Your task to perform on an android device: turn on translation in the chrome app Image 0: 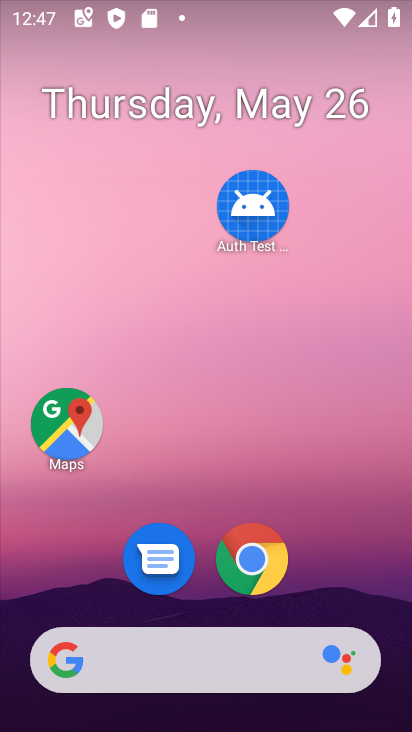
Step 0: click (251, 561)
Your task to perform on an android device: turn on translation in the chrome app Image 1: 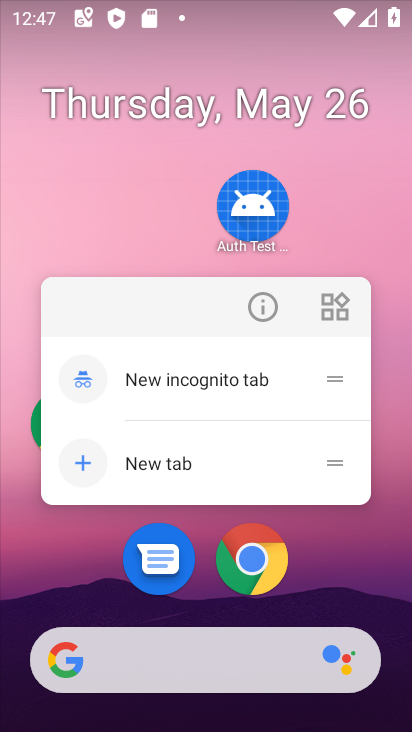
Step 1: click (246, 588)
Your task to perform on an android device: turn on translation in the chrome app Image 2: 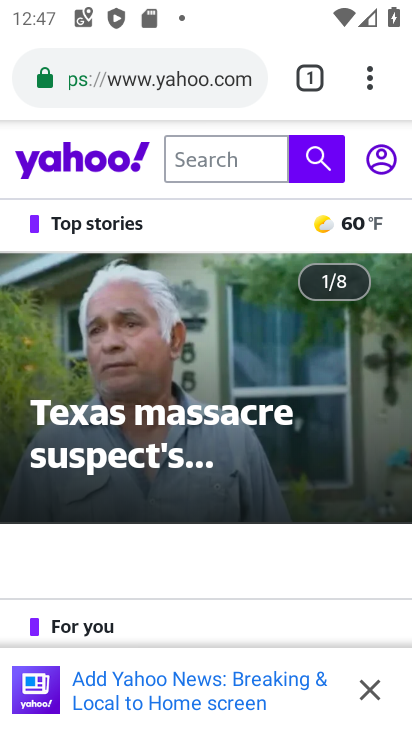
Step 2: click (381, 72)
Your task to perform on an android device: turn on translation in the chrome app Image 3: 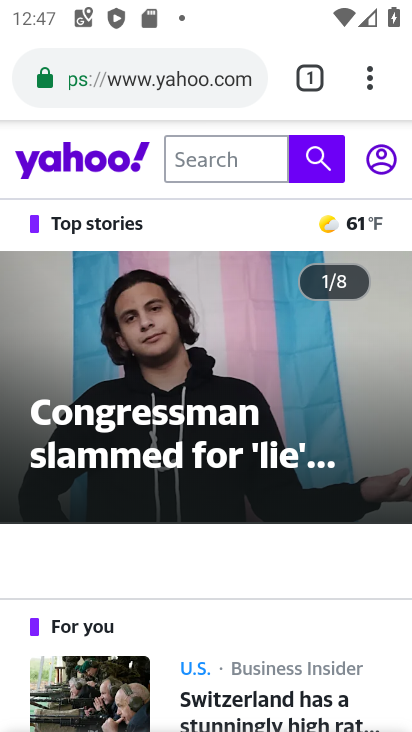
Step 3: click (363, 89)
Your task to perform on an android device: turn on translation in the chrome app Image 4: 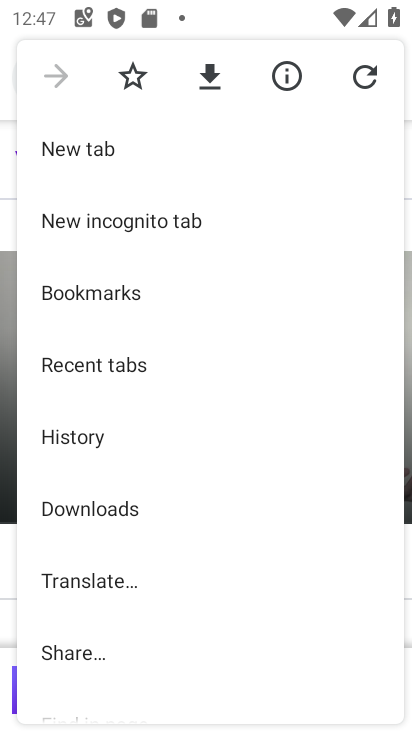
Step 4: drag from (217, 649) to (198, 423)
Your task to perform on an android device: turn on translation in the chrome app Image 5: 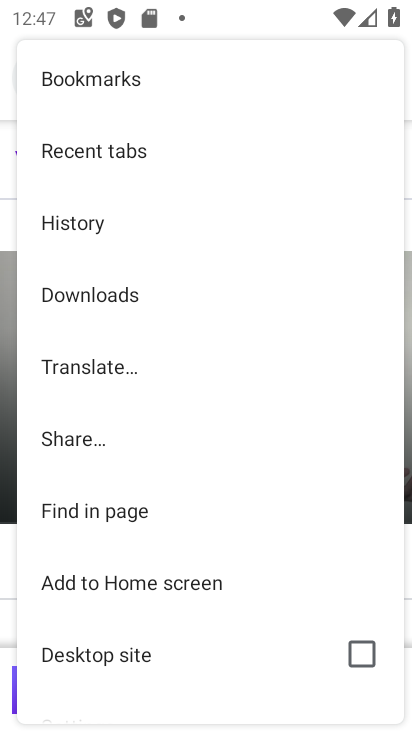
Step 5: drag from (155, 648) to (165, 416)
Your task to perform on an android device: turn on translation in the chrome app Image 6: 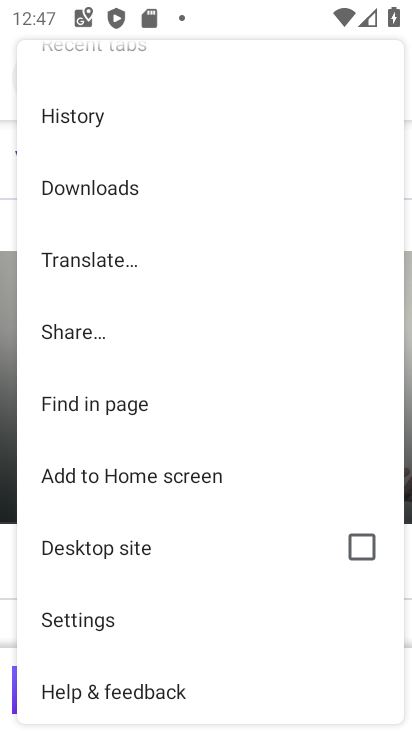
Step 6: click (137, 619)
Your task to perform on an android device: turn on translation in the chrome app Image 7: 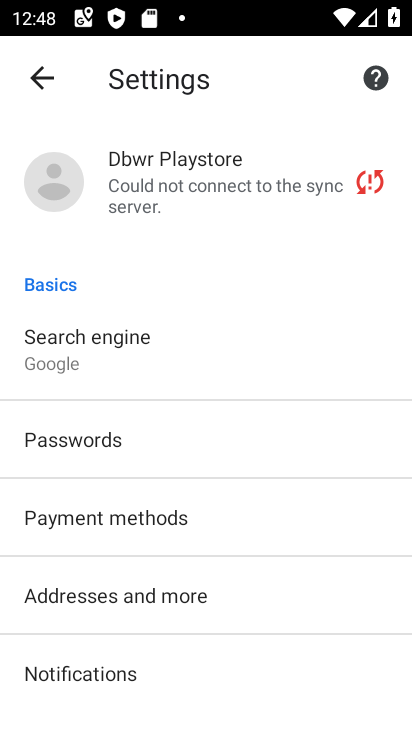
Step 7: drag from (187, 640) to (217, 403)
Your task to perform on an android device: turn on translation in the chrome app Image 8: 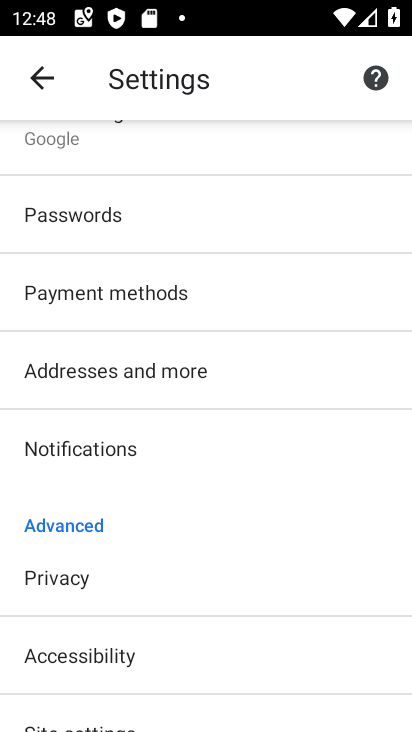
Step 8: drag from (185, 631) to (211, 454)
Your task to perform on an android device: turn on translation in the chrome app Image 9: 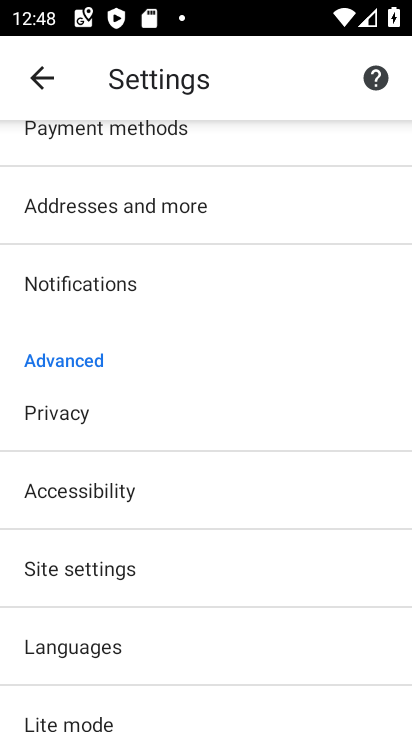
Step 9: click (141, 631)
Your task to perform on an android device: turn on translation in the chrome app Image 10: 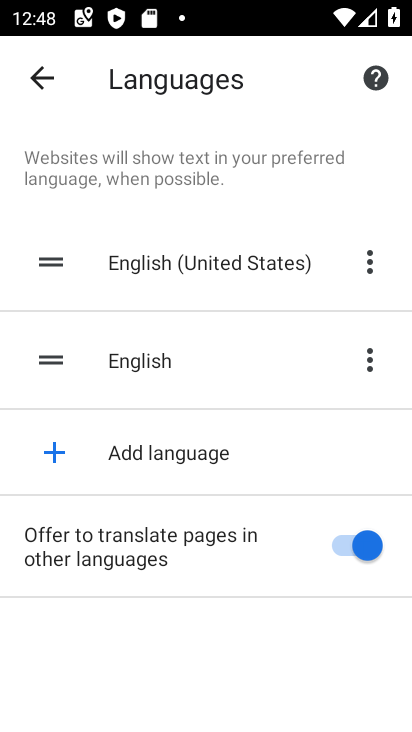
Step 10: task complete